Your task to perform on an android device: toggle pop-ups in chrome Image 0: 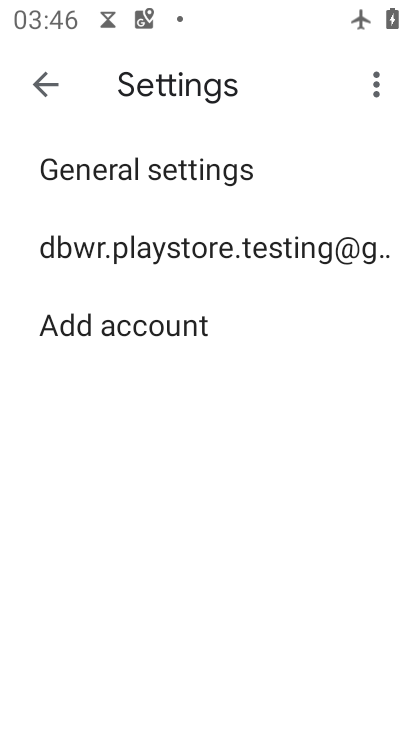
Step 0: press home button
Your task to perform on an android device: toggle pop-ups in chrome Image 1: 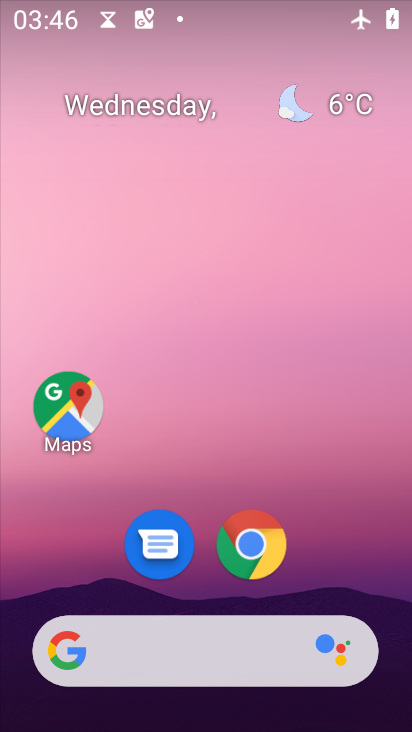
Step 1: click (238, 541)
Your task to perform on an android device: toggle pop-ups in chrome Image 2: 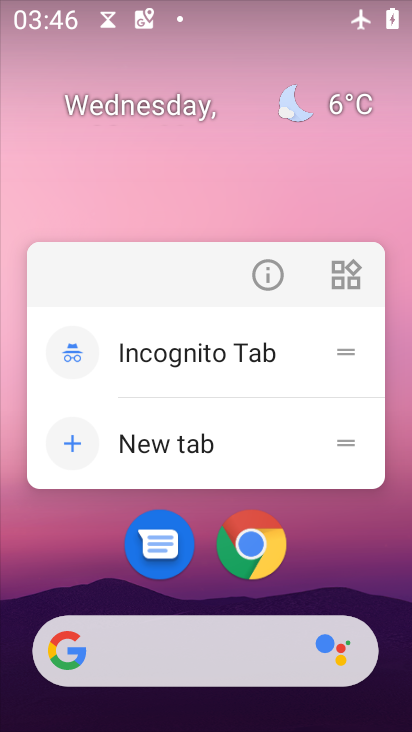
Step 2: click (274, 543)
Your task to perform on an android device: toggle pop-ups in chrome Image 3: 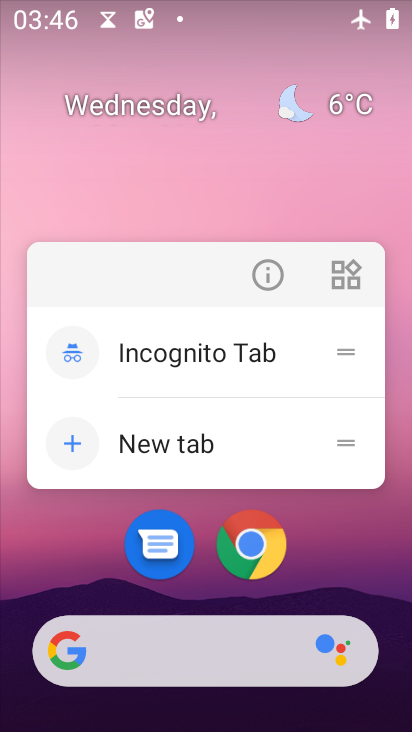
Step 3: click (254, 541)
Your task to perform on an android device: toggle pop-ups in chrome Image 4: 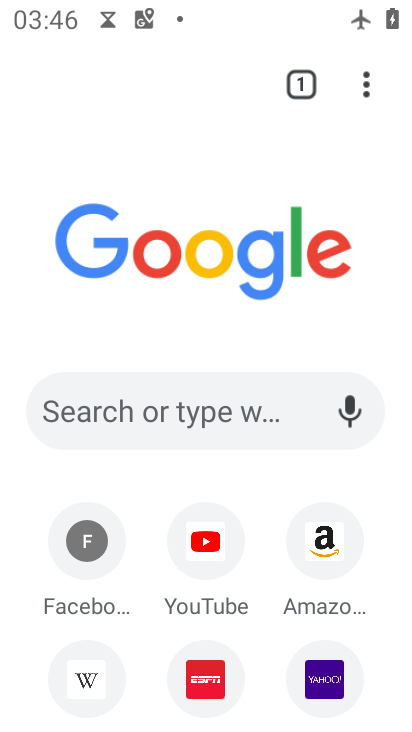
Step 4: click (364, 81)
Your task to perform on an android device: toggle pop-ups in chrome Image 5: 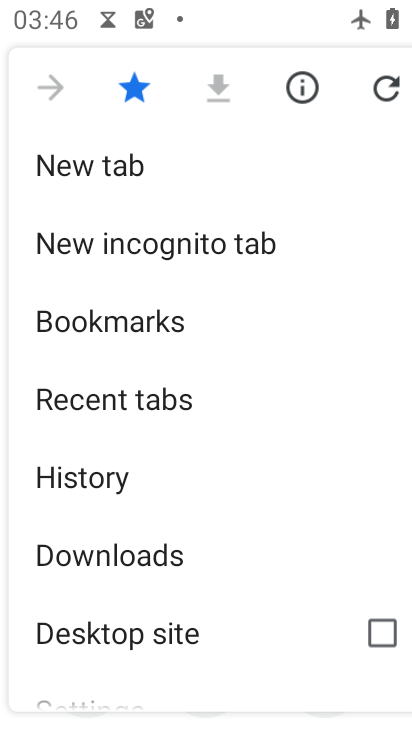
Step 5: drag from (174, 607) to (147, 315)
Your task to perform on an android device: toggle pop-ups in chrome Image 6: 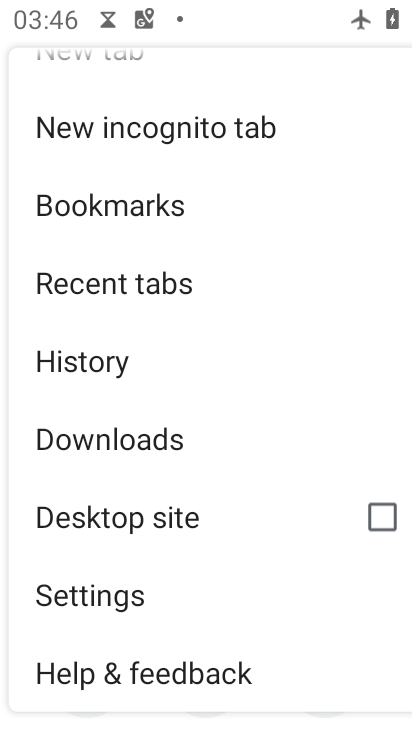
Step 6: click (127, 606)
Your task to perform on an android device: toggle pop-ups in chrome Image 7: 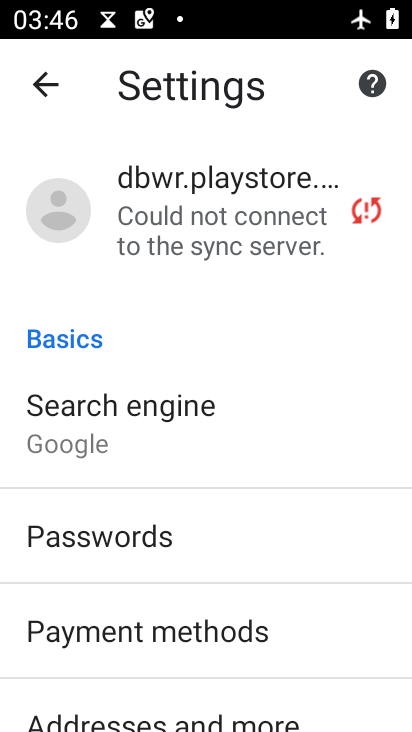
Step 7: drag from (166, 652) to (163, 402)
Your task to perform on an android device: toggle pop-ups in chrome Image 8: 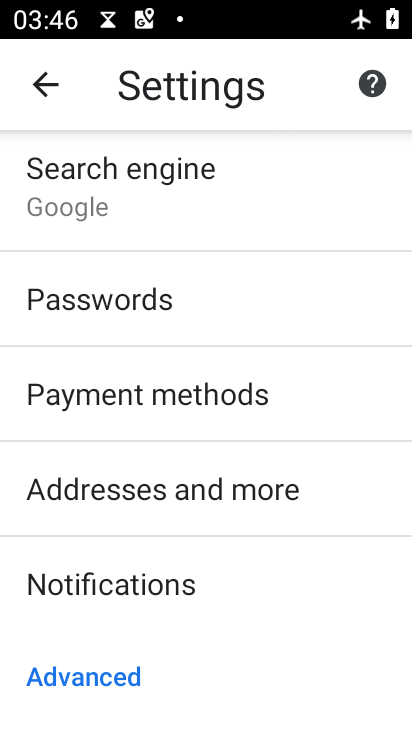
Step 8: drag from (222, 654) to (195, 331)
Your task to perform on an android device: toggle pop-ups in chrome Image 9: 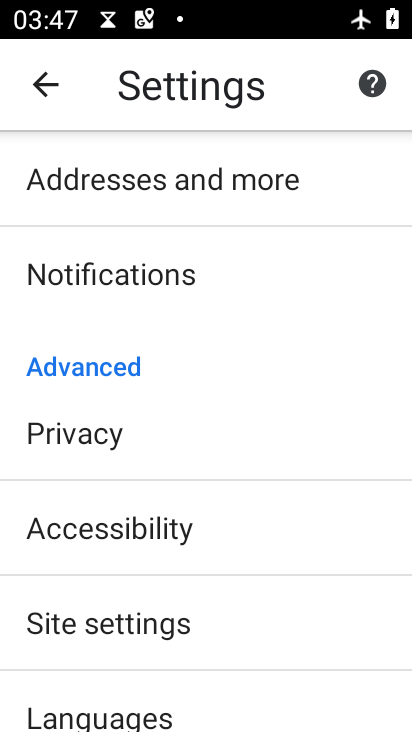
Step 9: click (194, 612)
Your task to perform on an android device: toggle pop-ups in chrome Image 10: 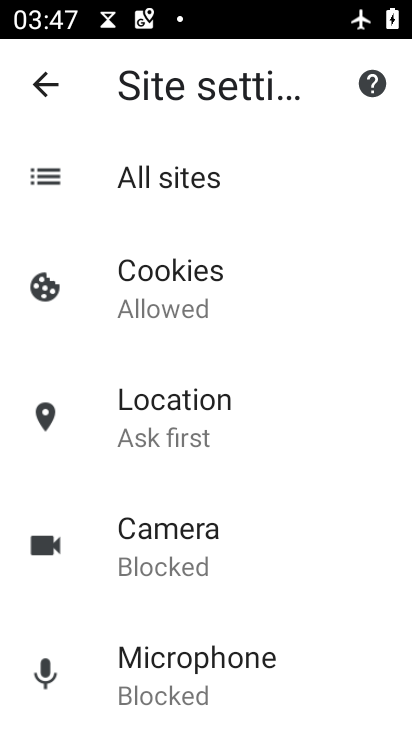
Step 10: drag from (190, 583) to (195, 308)
Your task to perform on an android device: toggle pop-ups in chrome Image 11: 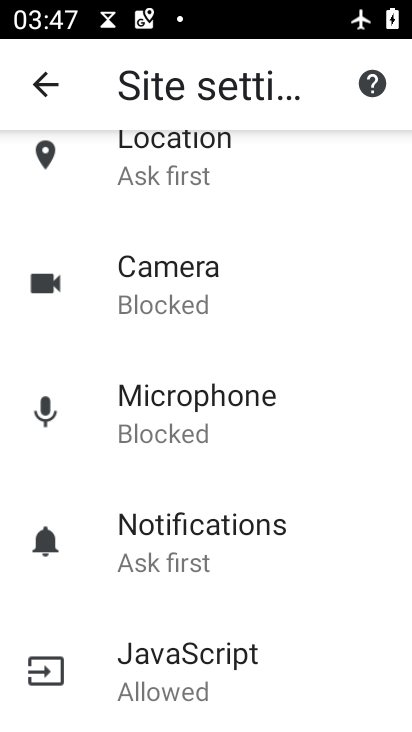
Step 11: drag from (192, 657) to (191, 354)
Your task to perform on an android device: toggle pop-ups in chrome Image 12: 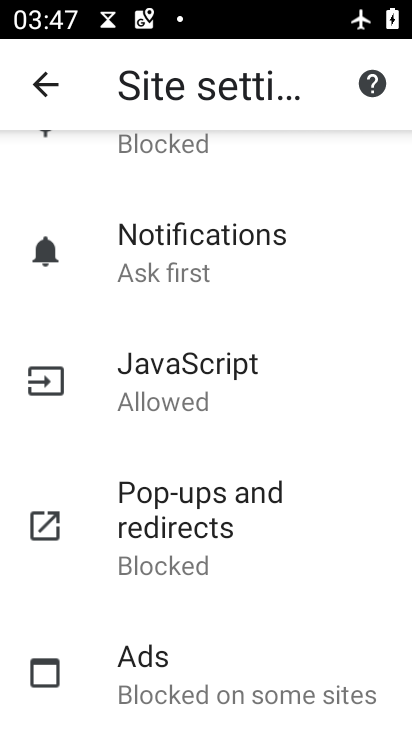
Step 12: click (200, 549)
Your task to perform on an android device: toggle pop-ups in chrome Image 13: 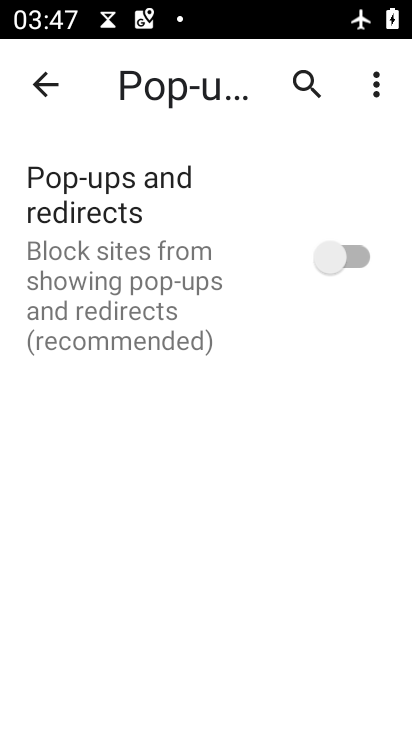
Step 13: click (301, 253)
Your task to perform on an android device: toggle pop-ups in chrome Image 14: 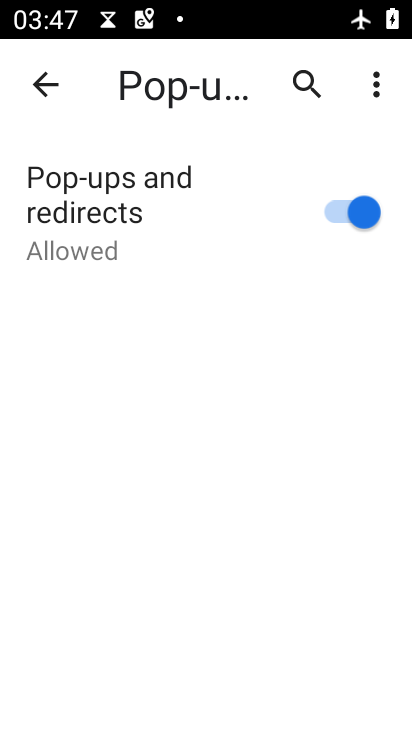
Step 14: task complete